Your task to perform on an android device: Open eBay Image 0: 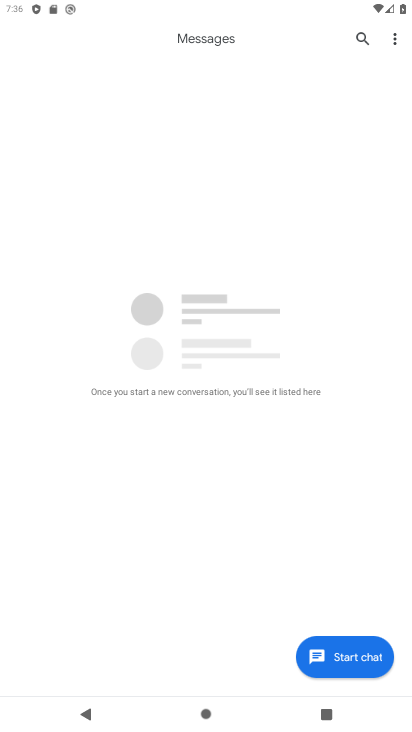
Step 0: press home button
Your task to perform on an android device: Open eBay Image 1: 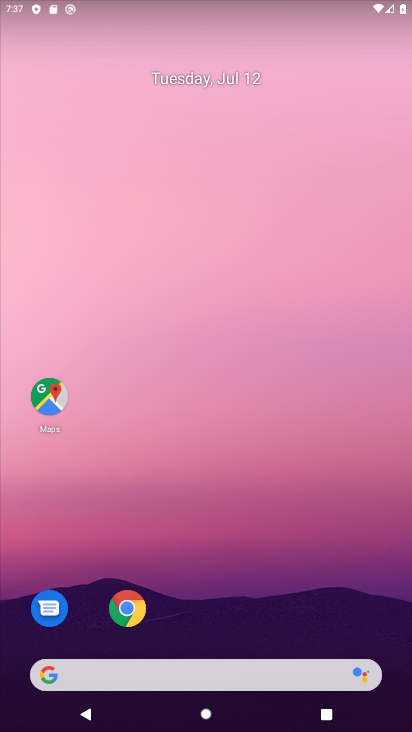
Step 1: click (129, 613)
Your task to perform on an android device: Open eBay Image 2: 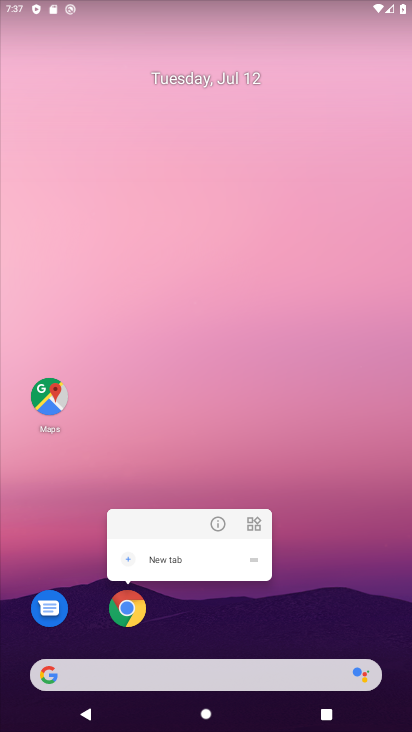
Step 2: click (121, 613)
Your task to perform on an android device: Open eBay Image 3: 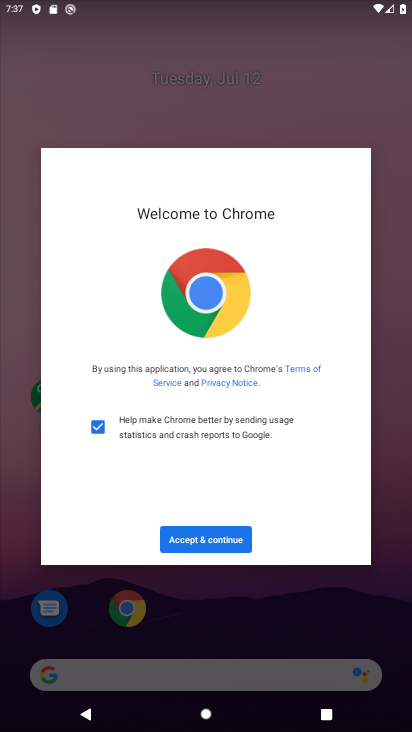
Step 3: click (207, 541)
Your task to perform on an android device: Open eBay Image 4: 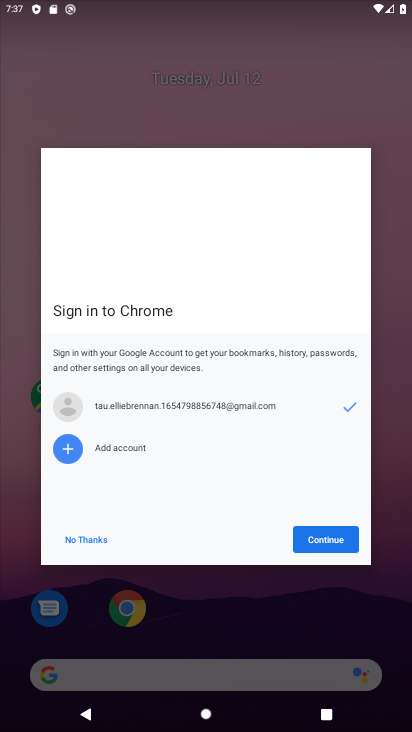
Step 4: click (312, 543)
Your task to perform on an android device: Open eBay Image 5: 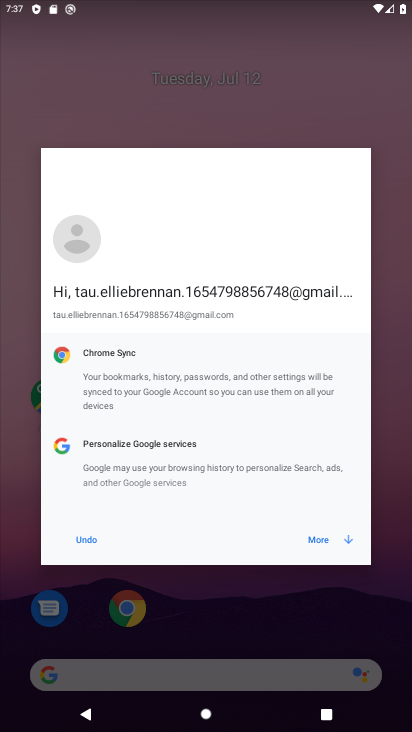
Step 5: click (353, 536)
Your task to perform on an android device: Open eBay Image 6: 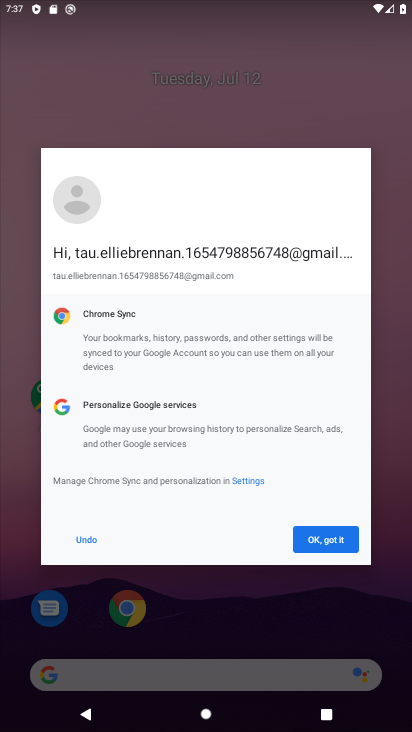
Step 6: click (331, 538)
Your task to perform on an android device: Open eBay Image 7: 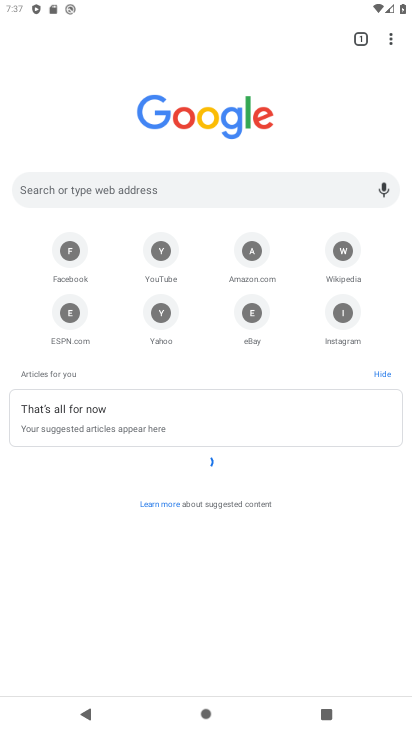
Step 7: click (253, 331)
Your task to perform on an android device: Open eBay Image 8: 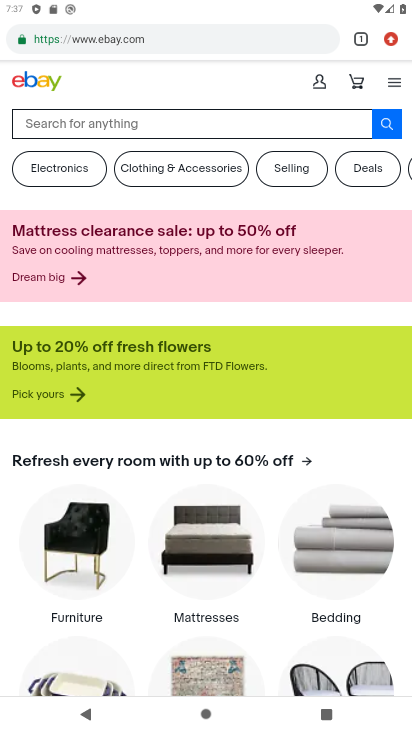
Step 8: task complete